Your task to perform on an android device: turn off sleep mode Image 0: 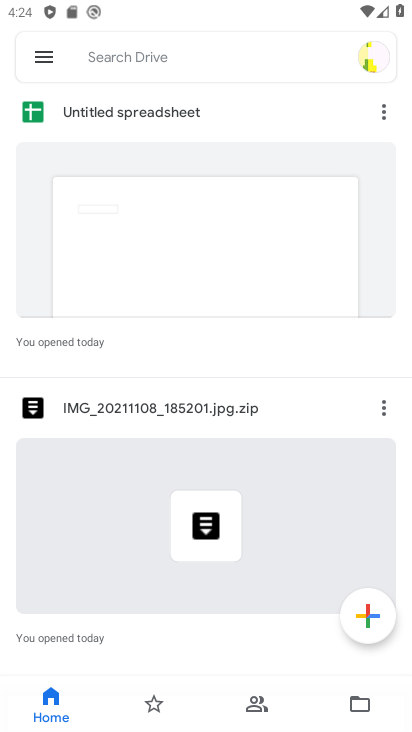
Step 0: press home button
Your task to perform on an android device: turn off sleep mode Image 1: 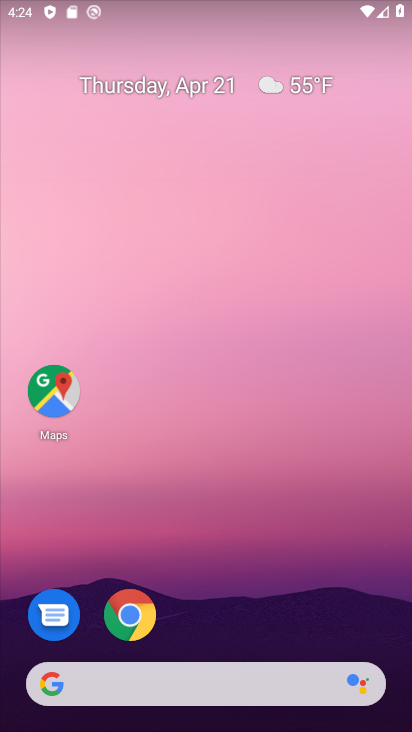
Step 1: drag from (200, 628) to (200, 214)
Your task to perform on an android device: turn off sleep mode Image 2: 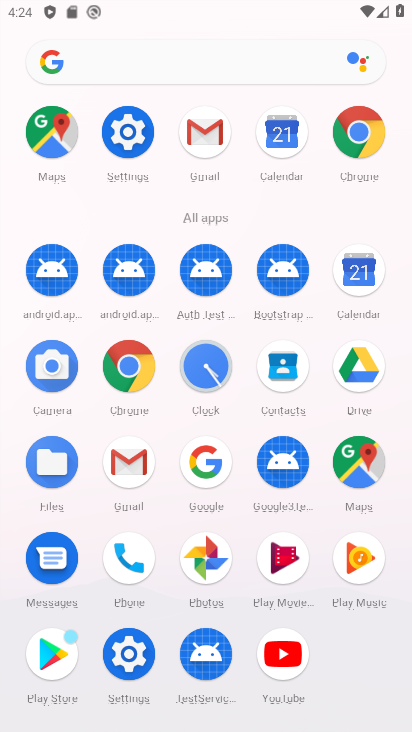
Step 2: click (126, 137)
Your task to perform on an android device: turn off sleep mode Image 3: 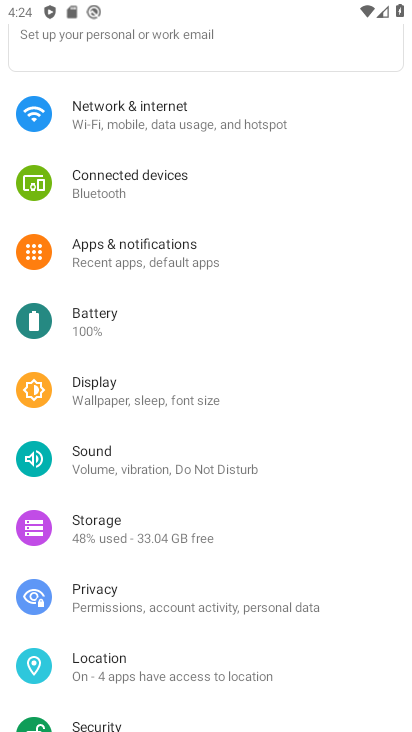
Step 3: click (140, 404)
Your task to perform on an android device: turn off sleep mode Image 4: 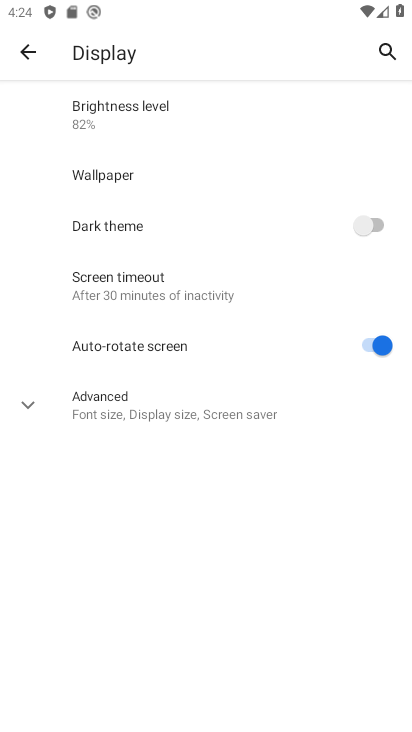
Step 4: click (138, 268)
Your task to perform on an android device: turn off sleep mode Image 5: 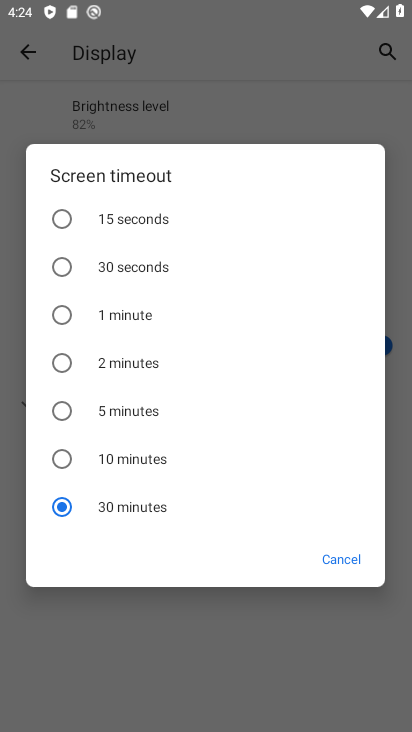
Step 5: click (138, 268)
Your task to perform on an android device: turn off sleep mode Image 6: 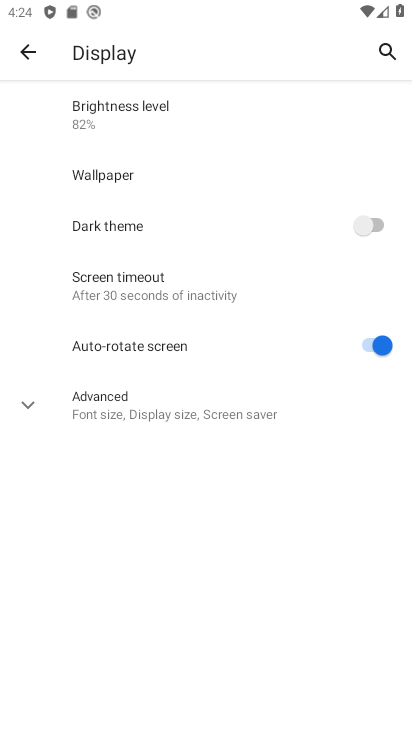
Step 6: task complete